Your task to perform on an android device: Play the new Ed Sheeran video on YouTube Image 0: 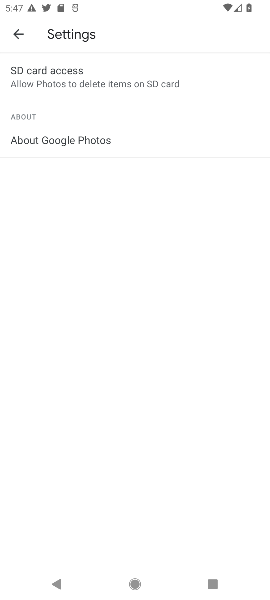
Step 0: press home button
Your task to perform on an android device: Play the new Ed Sheeran video on YouTube Image 1: 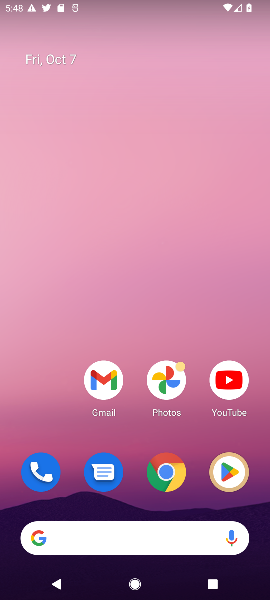
Step 1: click (234, 383)
Your task to perform on an android device: Play the new Ed Sheeran video on YouTube Image 2: 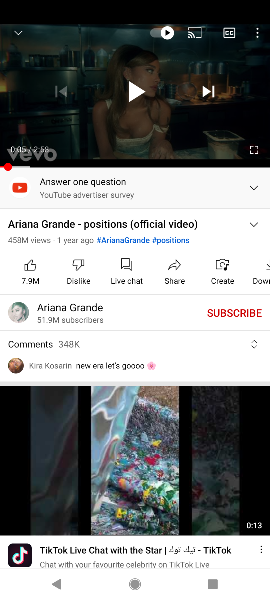
Step 2: click (19, 33)
Your task to perform on an android device: Play the new Ed Sheeran video on YouTube Image 3: 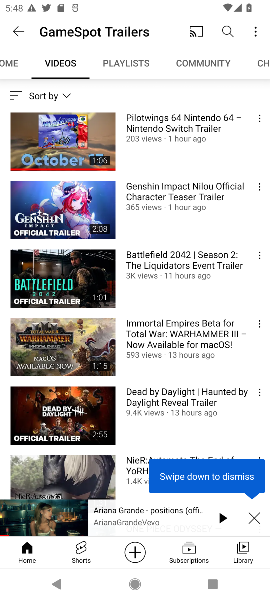
Step 3: click (233, 25)
Your task to perform on an android device: Play the new Ed Sheeran video on YouTube Image 4: 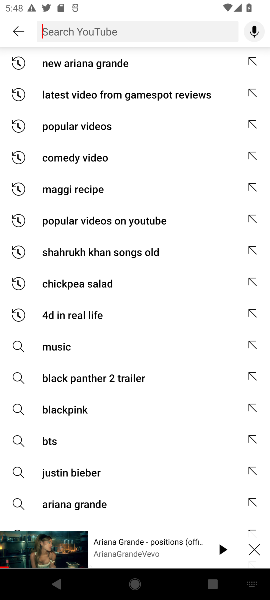
Step 4: type "new Ed Sheeran video"
Your task to perform on an android device: Play the new Ed Sheeran video on YouTube Image 5: 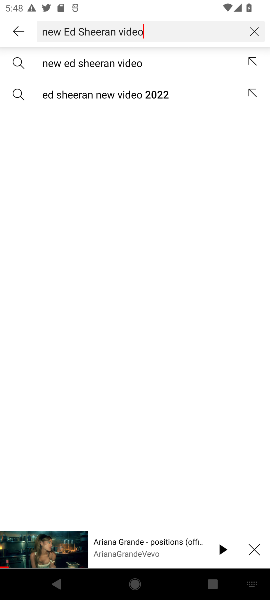
Step 5: press enter
Your task to perform on an android device: Play the new Ed Sheeran video on YouTube Image 6: 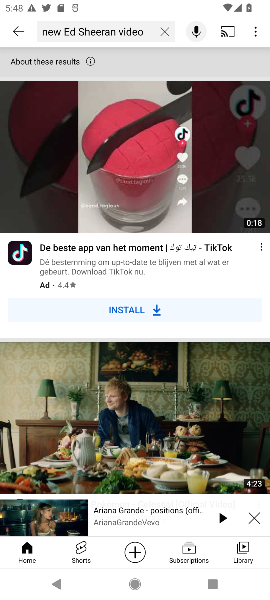
Step 6: drag from (181, 436) to (181, 321)
Your task to perform on an android device: Play the new Ed Sheeran video on YouTube Image 7: 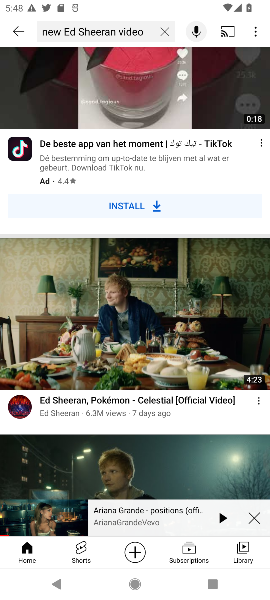
Step 7: click (157, 337)
Your task to perform on an android device: Play the new Ed Sheeran video on YouTube Image 8: 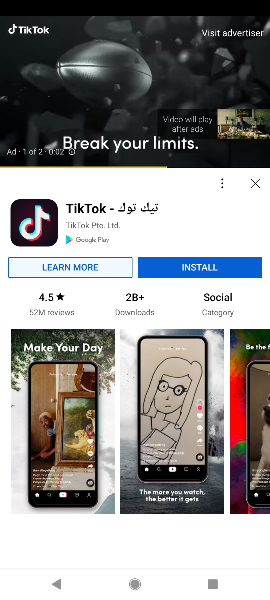
Step 8: click (252, 182)
Your task to perform on an android device: Play the new Ed Sheeran video on YouTube Image 9: 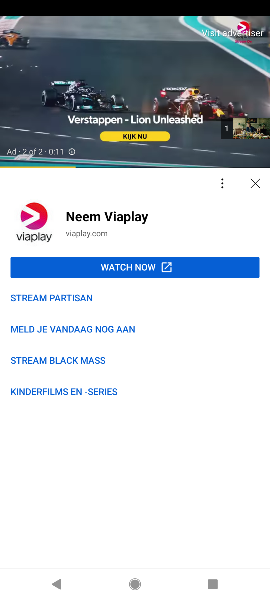
Step 9: click (253, 180)
Your task to perform on an android device: Play the new Ed Sheeran video on YouTube Image 10: 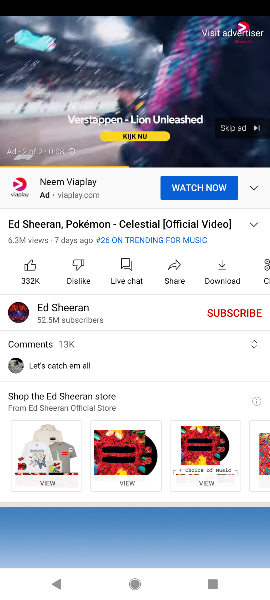
Step 10: click (239, 130)
Your task to perform on an android device: Play the new Ed Sheeran video on YouTube Image 11: 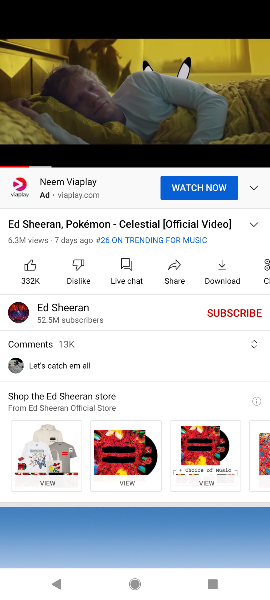
Step 11: task complete